Your task to perform on an android device: When is my next meeting? Image 0: 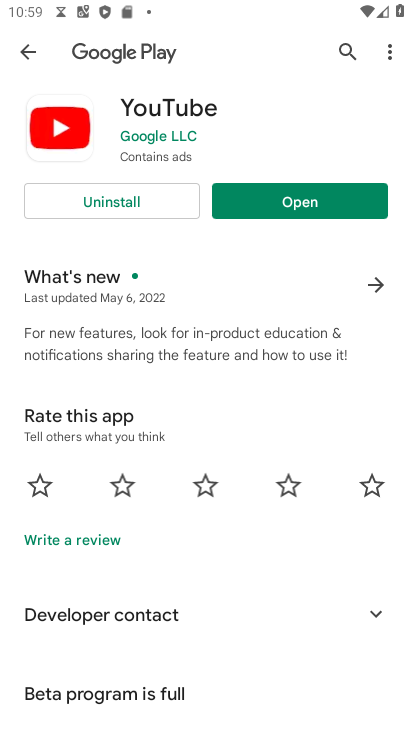
Step 0: press home button
Your task to perform on an android device: When is my next meeting? Image 1: 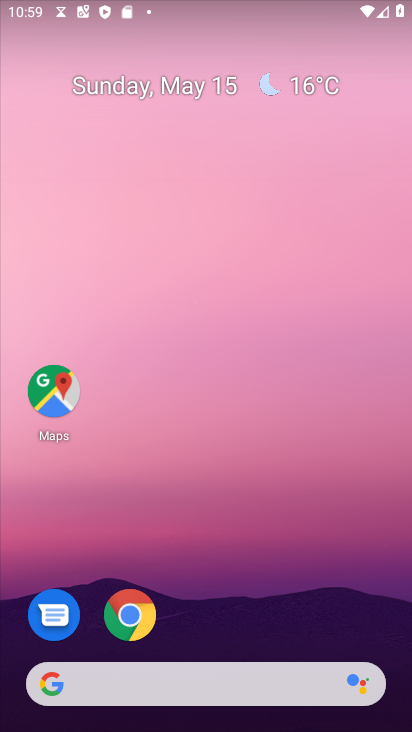
Step 1: drag from (250, 685) to (359, 17)
Your task to perform on an android device: When is my next meeting? Image 2: 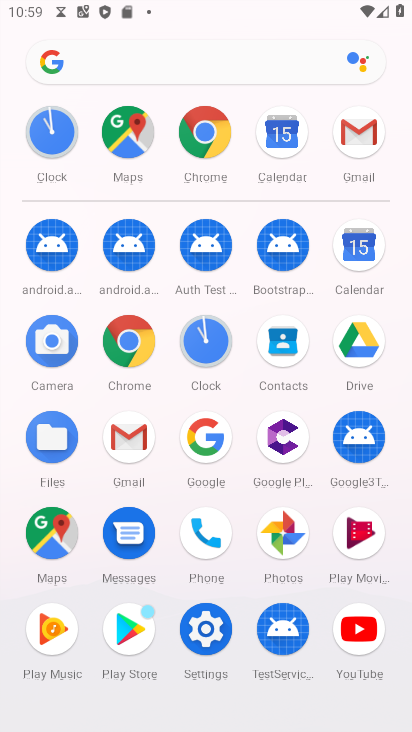
Step 2: click (121, 345)
Your task to perform on an android device: When is my next meeting? Image 3: 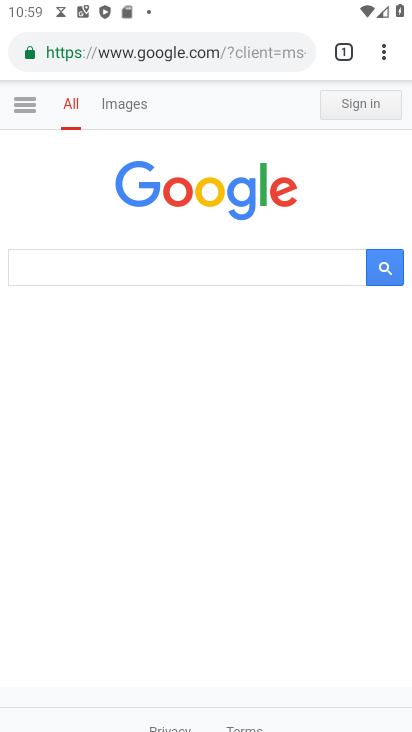
Step 3: press home button
Your task to perform on an android device: When is my next meeting? Image 4: 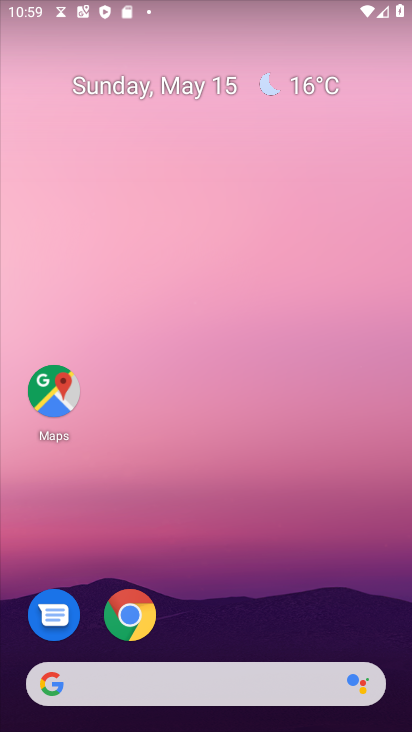
Step 4: drag from (228, 650) to (310, 2)
Your task to perform on an android device: When is my next meeting? Image 5: 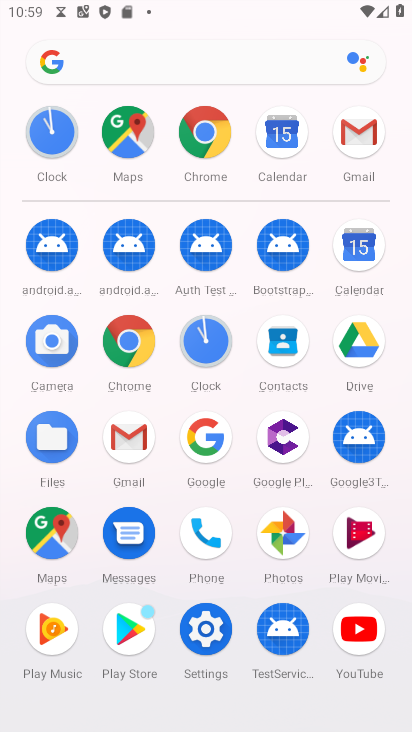
Step 5: click (362, 260)
Your task to perform on an android device: When is my next meeting? Image 6: 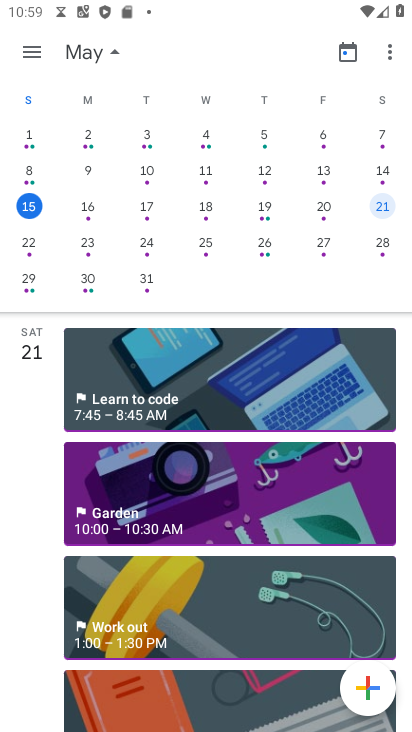
Step 6: click (93, 211)
Your task to perform on an android device: When is my next meeting? Image 7: 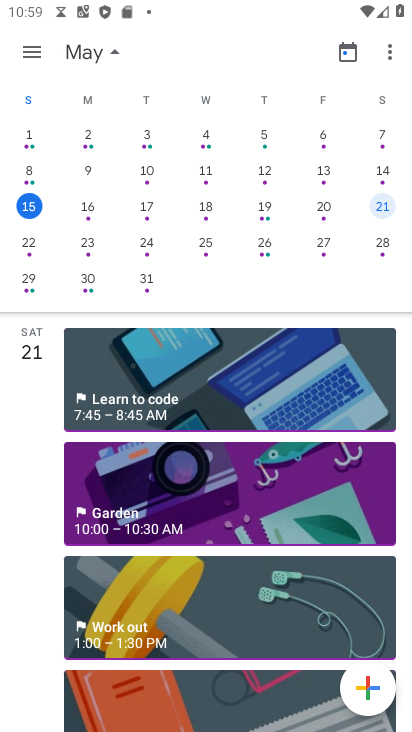
Step 7: task complete